Your task to perform on an android device: check out phone information Image 0: 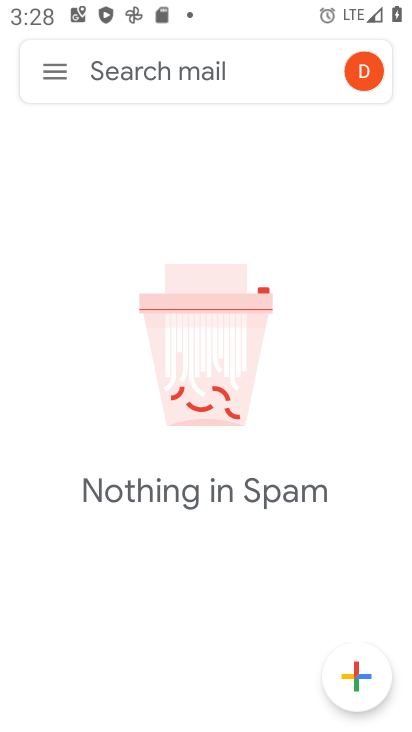
Step 0: press home button
Your task to perform on an android device: check out phone information Image 1: 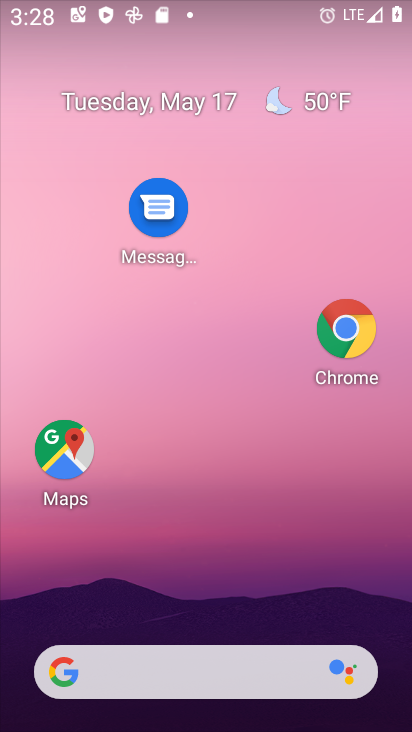
Step 1: drag from (267, 600) to (255, 218)
Your task to perform on an android device: check out phone information Image 2: 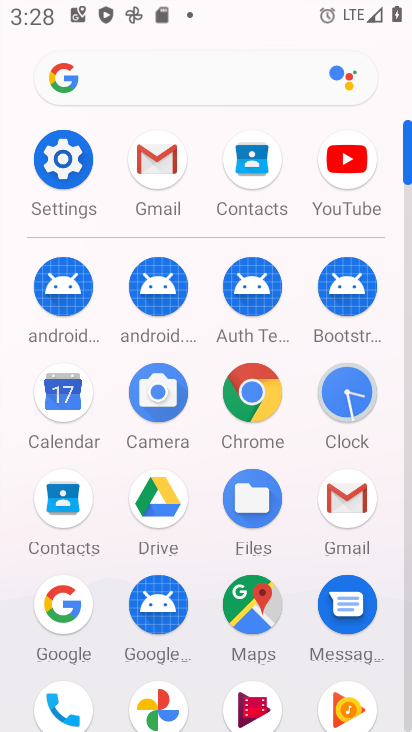
Step 2: click (85, 212)
Your task to perform on an android device: check out phone information Image 3: 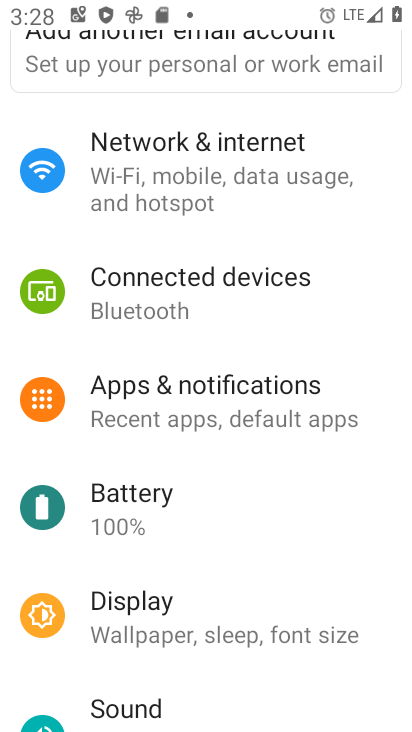
Step 3: task complete